Your task to perform on an android device: find photos in the google photos app Image 0: 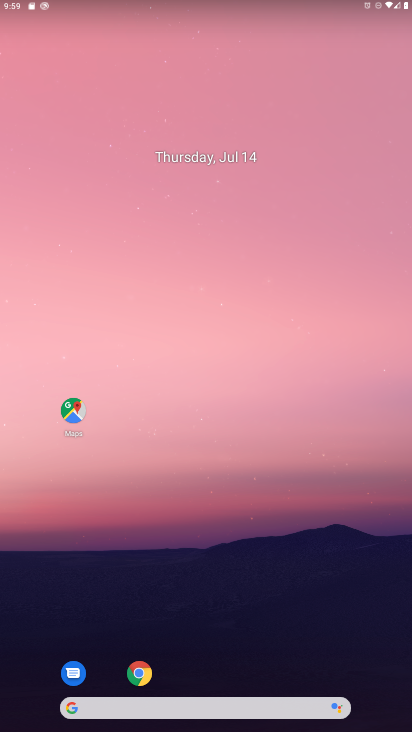
Step 0: drag from (219, 711) to (250, 263)
Your task to perform on an android device: find photos in the google photos app Image 1: 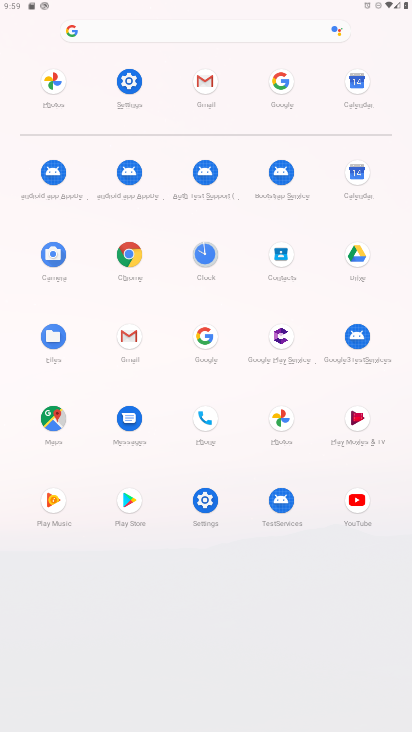
Step 1: click (278, 415)
Your task to perform on an android device: find photos in the google photos app Image 2: 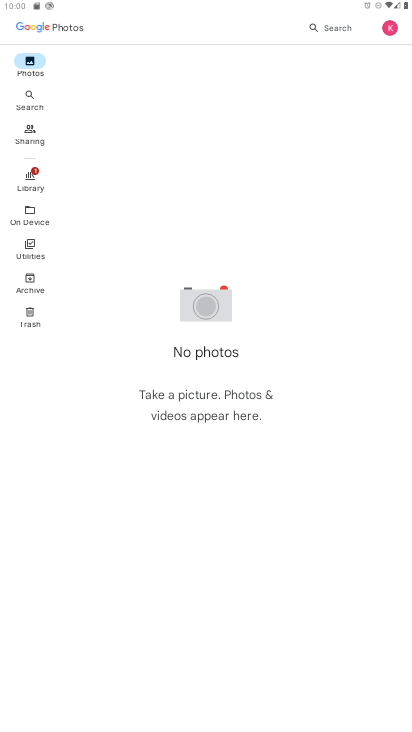
Step 2: click (31, 133)
Your task to perform on an android device: find photos in the google photos app Image 3: 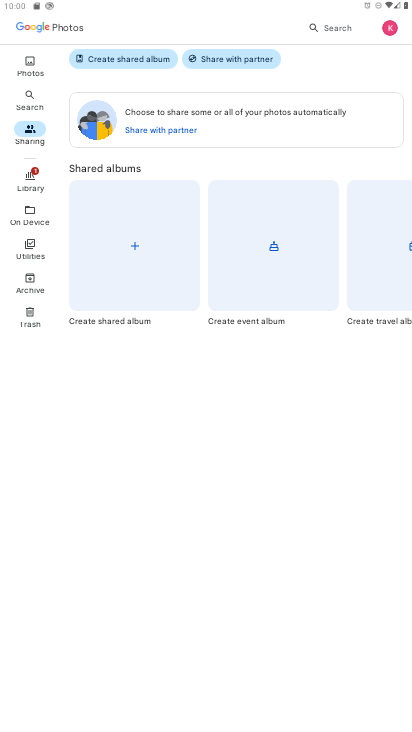
Step 3: click (29, 184)
Your task to perform on an android device: find photos in the google photos app Image 4: 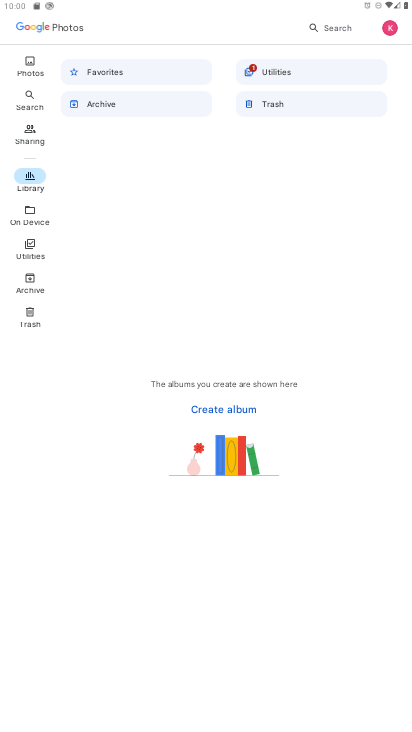
Step 4: click (33, 67)
Your task to perform on an android device: find photos in the google photos app Image 5: 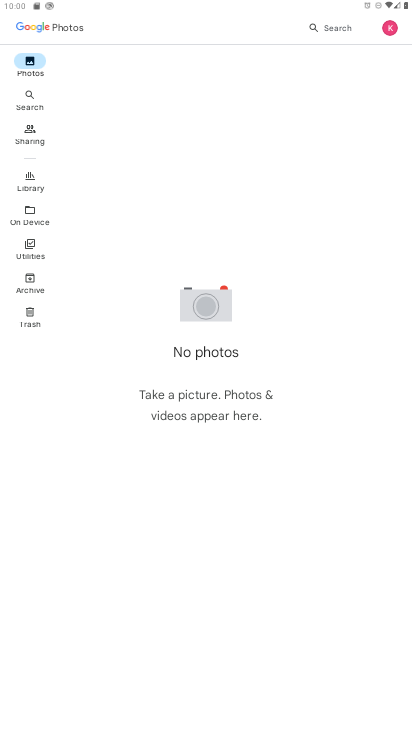
Step 5: click (34, 102)
Your task to perform on an android device: find photos in the google photos app Image 6: 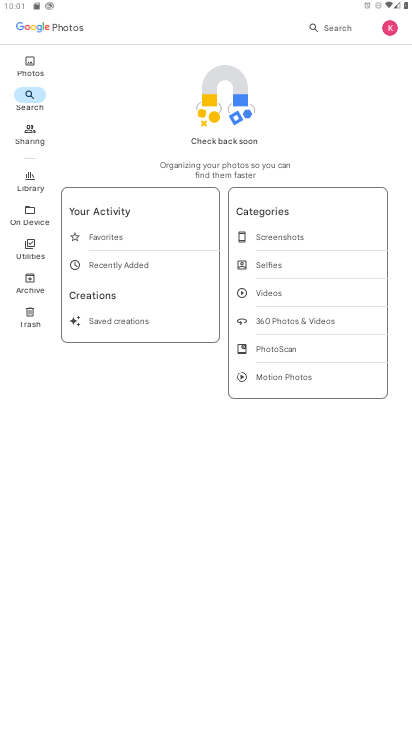
Step 6: click (106, 233)
Your task to perform on an android device: find photos in the google photos app Image 7: 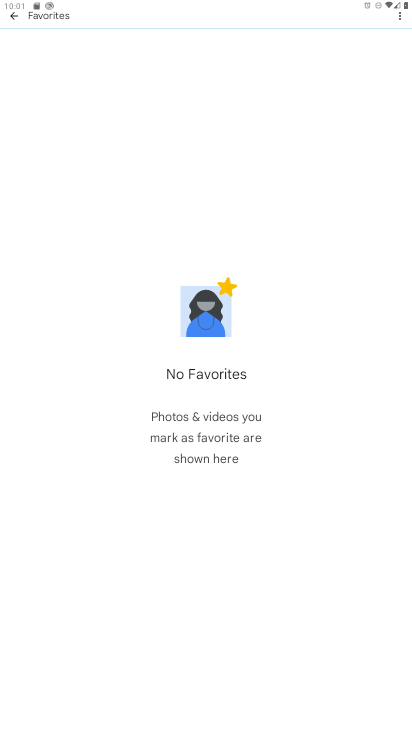
Step 7: task complete